Your task to perform on an android device: Go to battery settings Image 0: 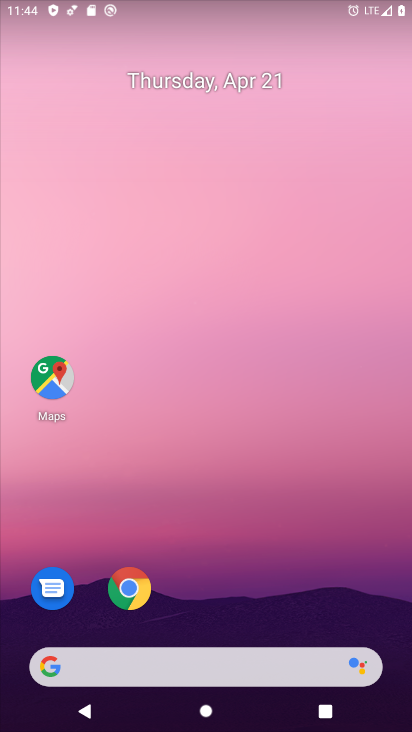
Step 0: drag from (237, 677) to (321, 174)
Your task to perform on an android device: Go to battery settings Image 1: 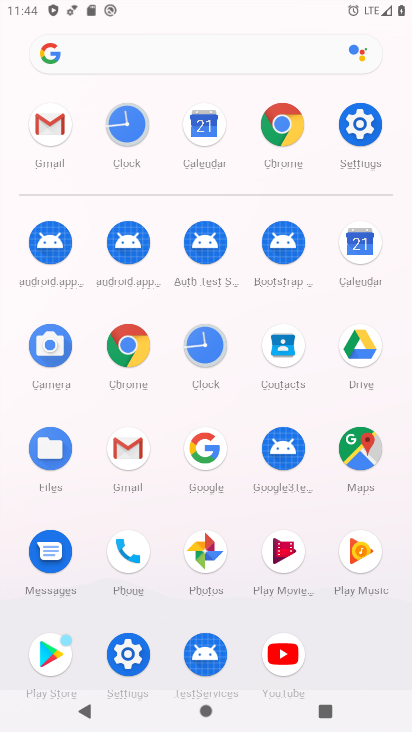
Step 1: click (352, 134)
Your task to perform on an android device: Go to battery settings Image 2: 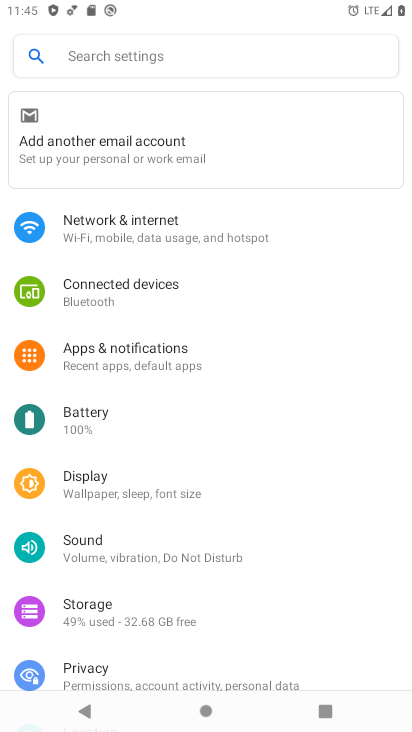
Step 2: click (104, 427)
Your task to perform on an android device: Go to battery settings Image 3: 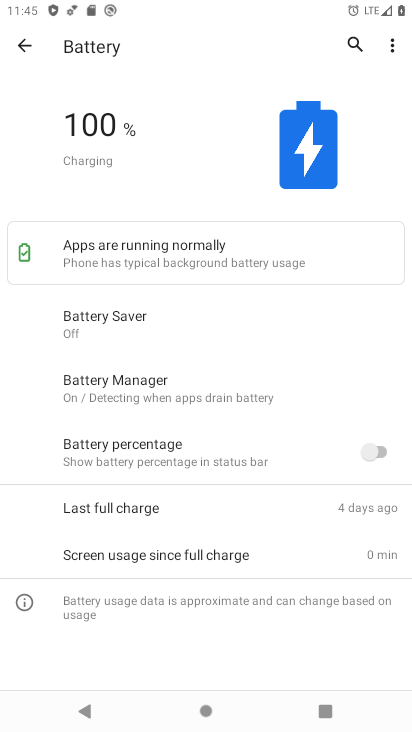
Step 3: task complete